Your task to perform on an android device: See recent photos Image 0: 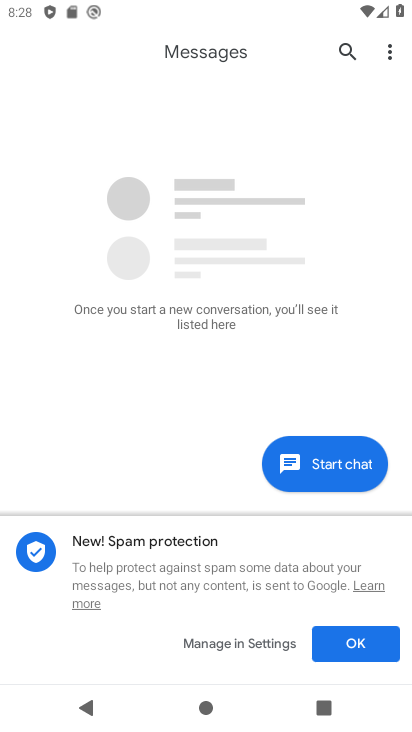
Step 0: press home button
Your task to perform on an android device: See recent photos Image 1: 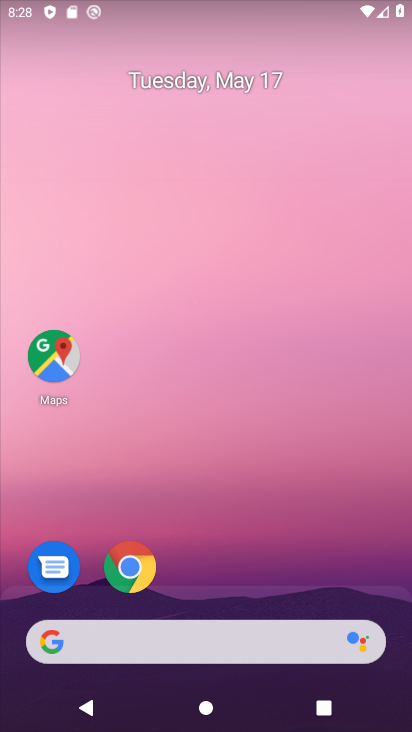
Step 1: drag from (272, 551) to (121, 15)
Your task to perform on an android device: See recent photos Image 2: 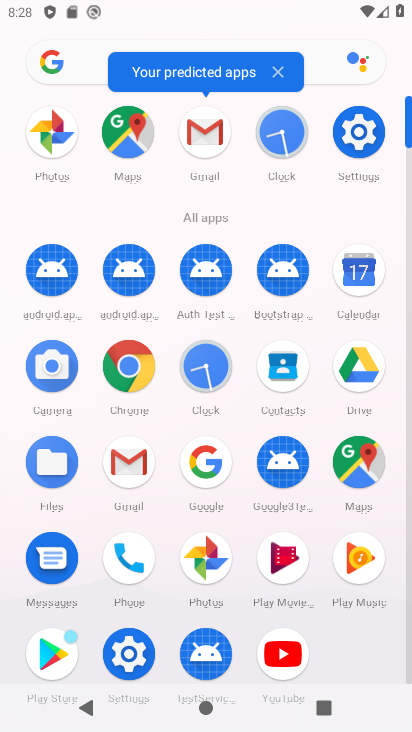
Step 2: click (46, 130)
Your task to perform on an android device: See recent photos Image 3: 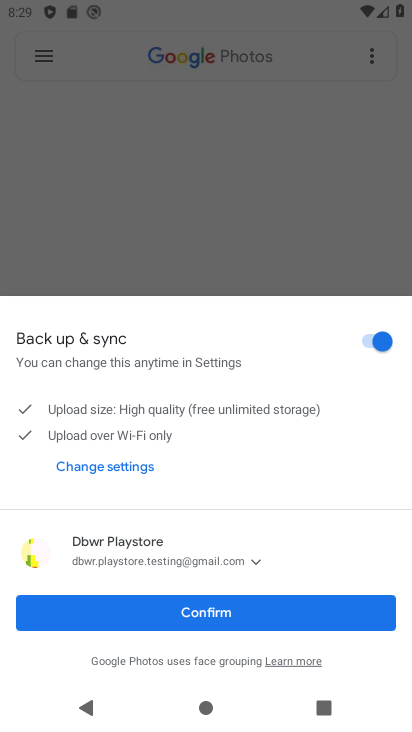
Step 3: click (209, 617)
Your task to perform on an android device: See recent photos Image 4: 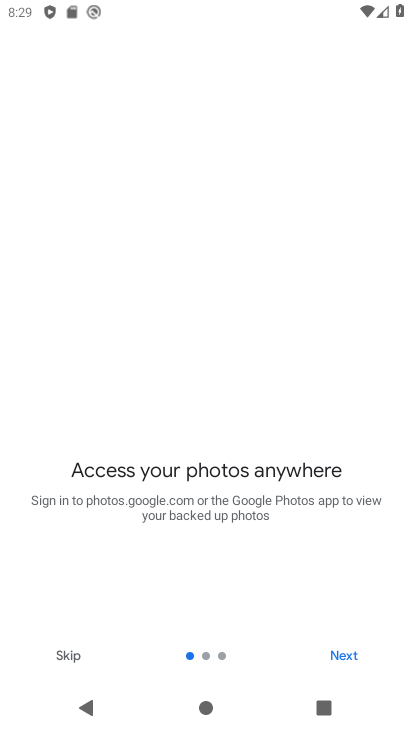
Step 4: click (347, 657)
Your task to perform on an android device: See recent photos Image 5: 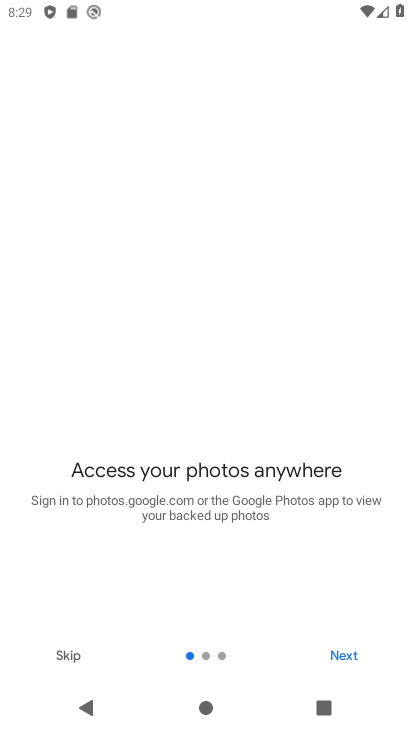
Step 5: click (347, 657)
Your task to perform on an android device: See recent photos Image 6: 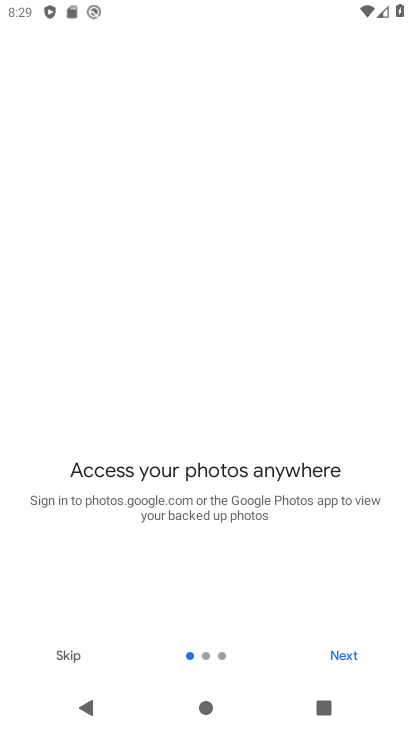
Step 6: click (347, 657)
Your task to perform on an android device: See recent photos Image 7: 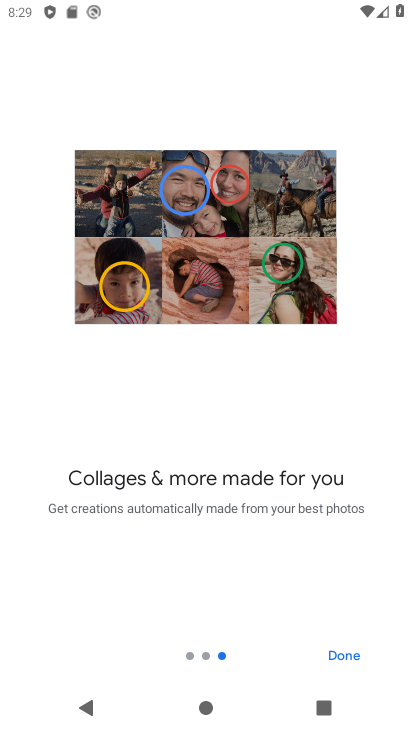
Step 7: click (347, 657)
Your task to perform on an android device: See recent photos Image 8: 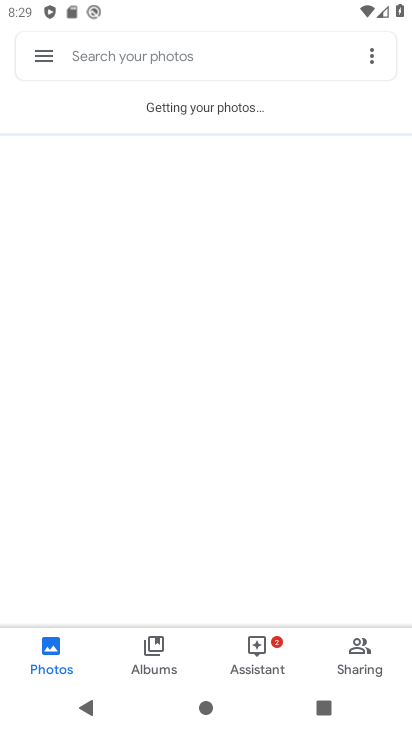
Step 8: task complete